Your task to perform on an android device: Open the calendar and show me this week's events Image 0: 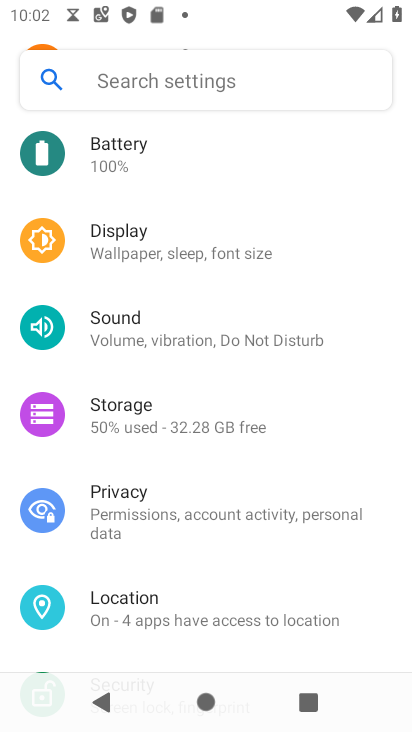
Step 0: press home button
Your task to perform on an android device: Open the calendar and show me this week's events Image 1: 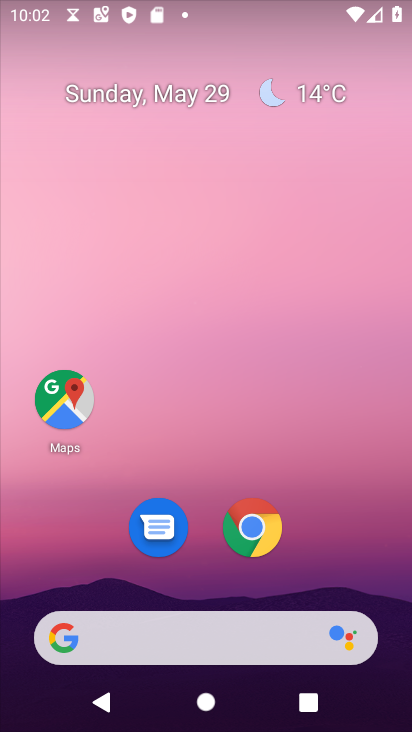
Step 1: drag from (204, 632) to (319, 119)
Your task to perform on an android device: Open the calendar and show me this week's events Image 2: 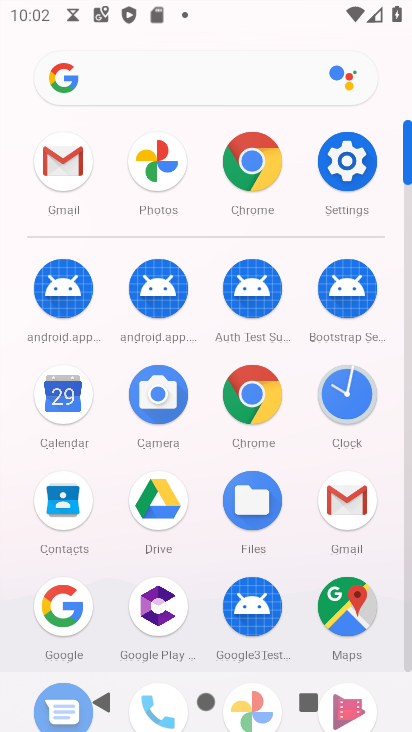
Step 2: click (66, 397)
Your task to perform on an android device: Open the calendar and show me this week's events Image 3: 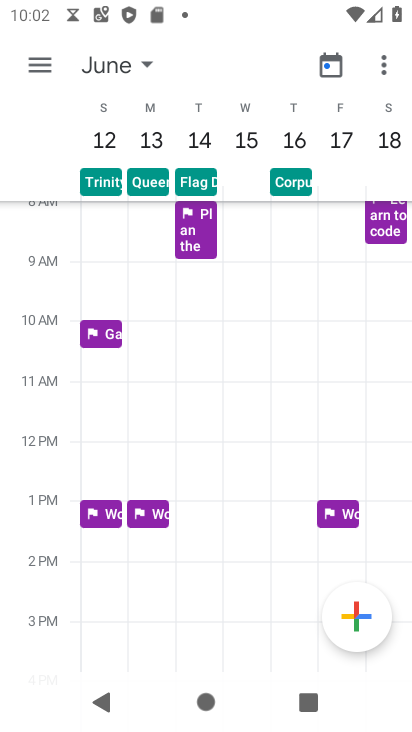
Step 3: click (104, 66)
Your task to perform on an android device: Open the calendar and show me this week's events Image 4: 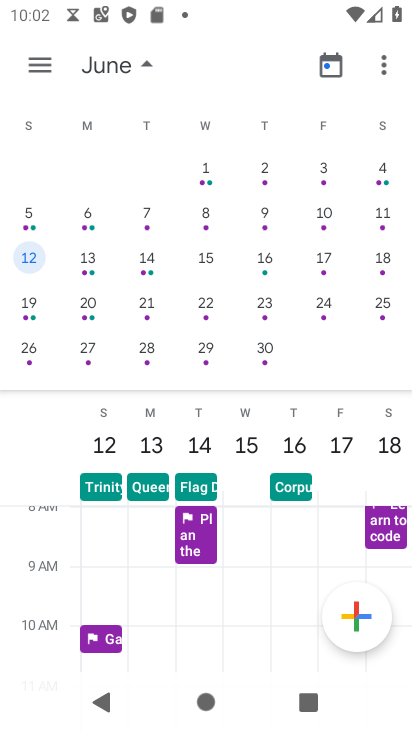
Step 4: drag from (48, 298) to (355, 283)
Your task to perform on an android device: Open the calendar and show me this week's events Image 5: 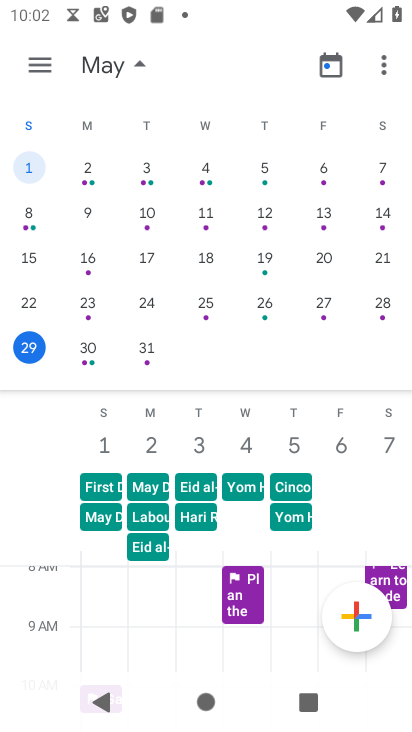
Step 5: click (31, 344)
Your task to perform on an android device: Open the calendar and show me this week's events Image 6: 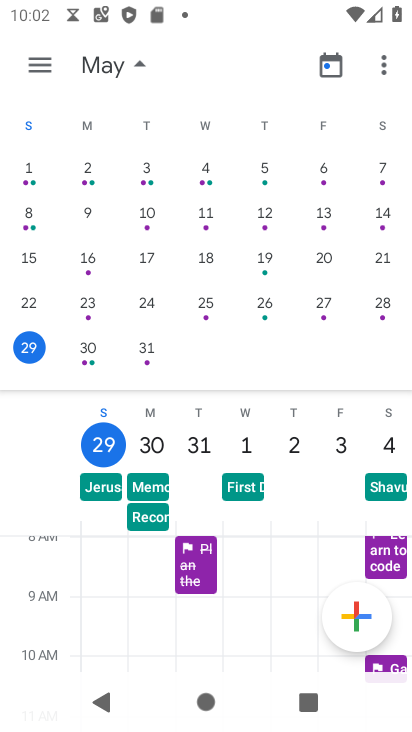
Step 6: click (49, 63)
Your task to perform on an android device: Open the calendar and show me this week's events Image 7: 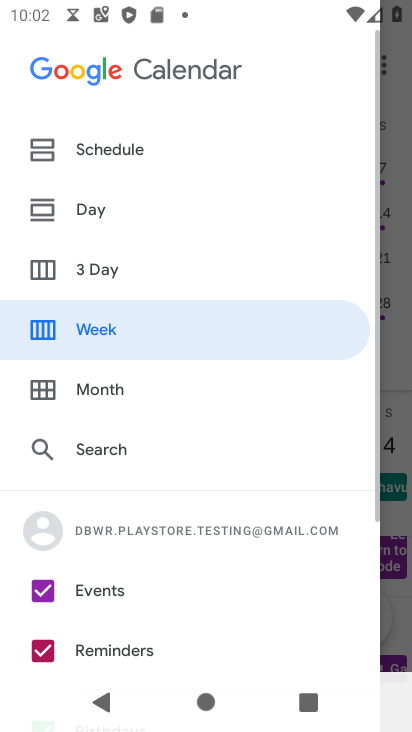
Step 7: click (89, 322)
Your task to perform on an android device: Open the calendar and show me this week's events Image 8: 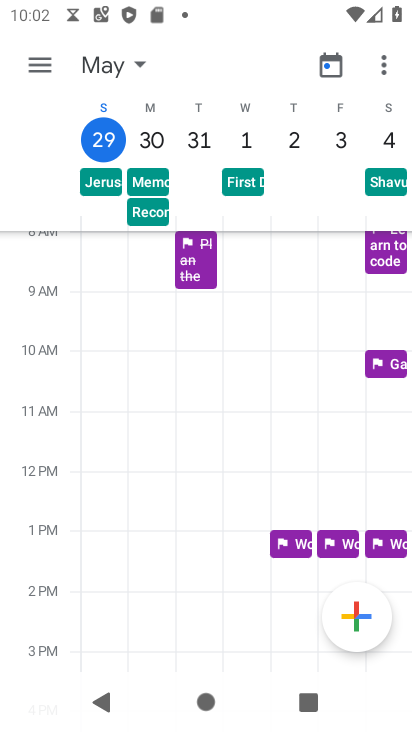
Step 8: click (43, 67)
Your task to perform on an android device: Open the calendar and show me this week's events Image 9: 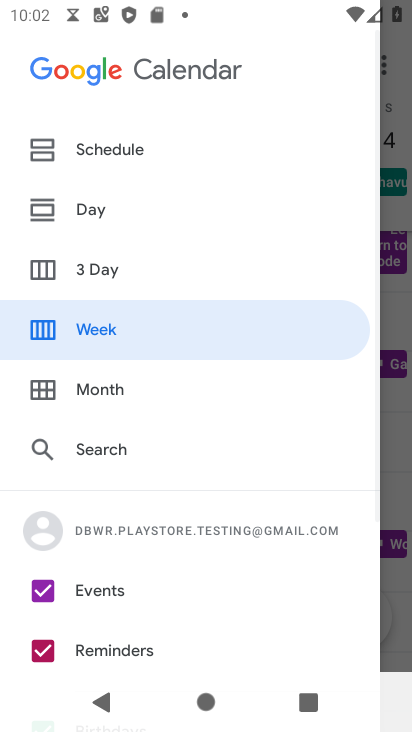
Step 9: click (136, 147)
Your task to perform on an android device: Open the calendar and show me this week's events Image 10: 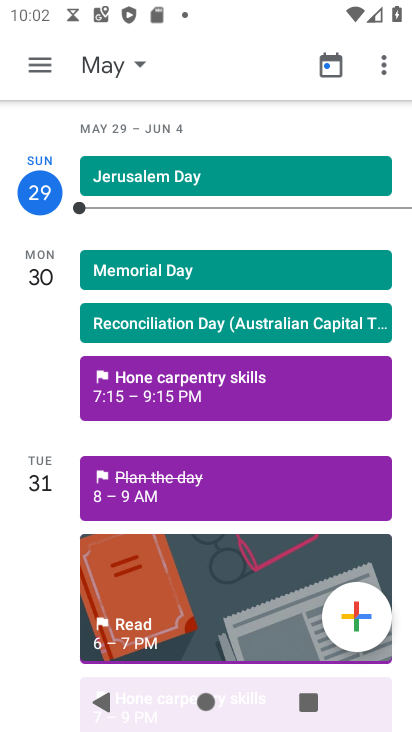
Step 10: click (181, 382)
Your task to perform on an android device: Open the calendar and show me this week's events Image 11: 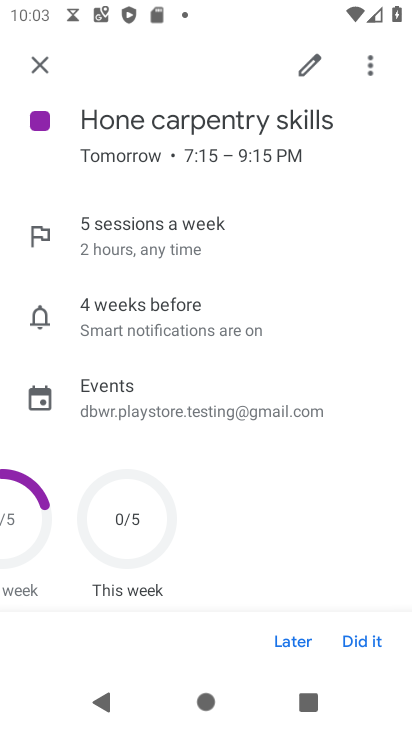
Step 11: task complete